Your task to perform on an android device: Do I have any events today? Image 0: 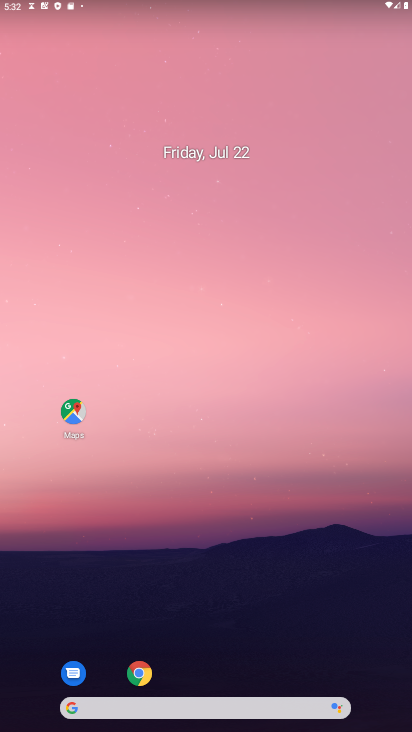
Step 0: press home button
Your task to perform on an android device: Do I have any events today? Image 1: 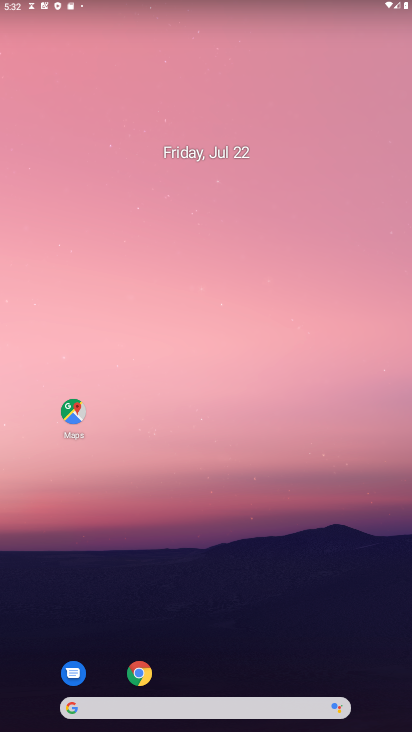
Step 1: drag from (216, 663) to (244, 79)
Your task to perform on an android device: Do I have any events today? Image 2: 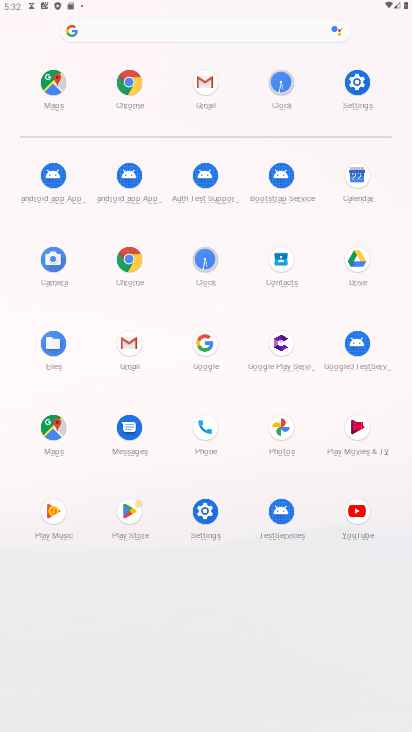
Step 2: click (358, 178)
Your task to perform on an android device: Do I have any events today? Image 3: 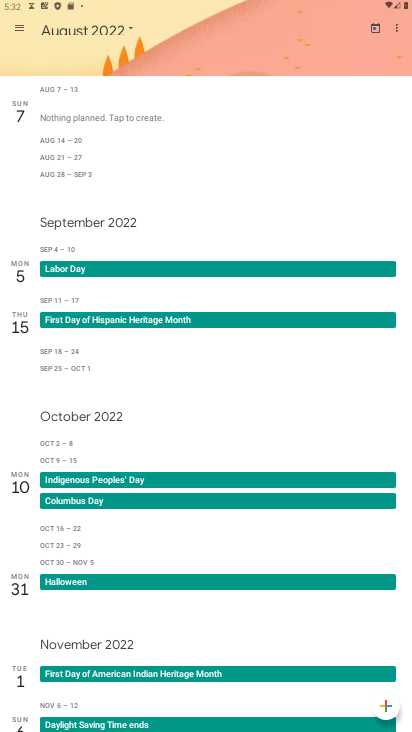
Step 3: click (128, 30)
Your task to perform on an android device: Do I have any events today? Image 4: 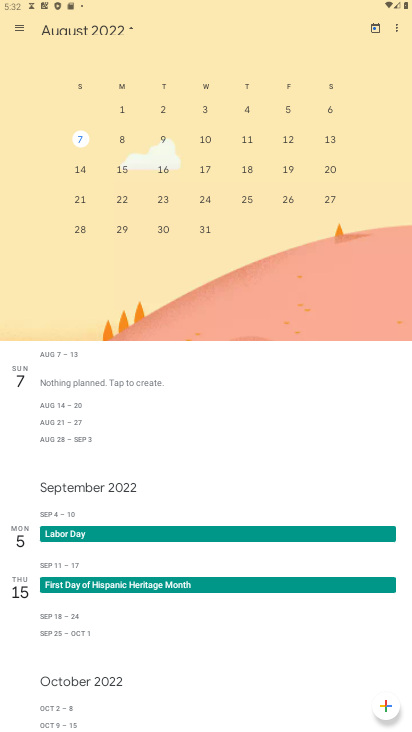
Step 4: drag from (105, 196) to (404, 179)
Your task to perform on an android device: Do I have any events today? Image 5: 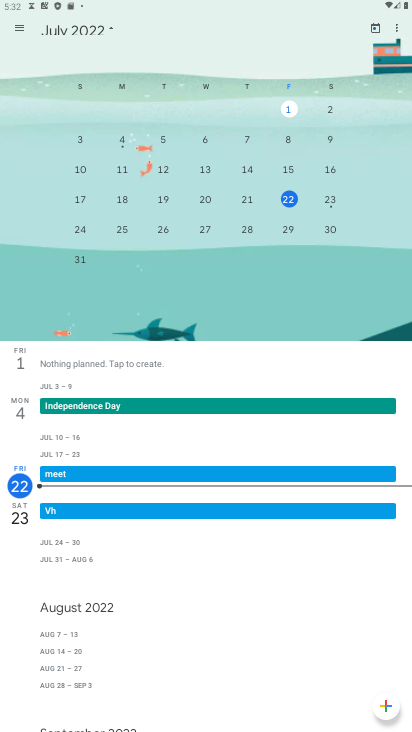
Step 5: click (289, 204)
Your task to perform on an android device: Do I have any events today? Image 6: 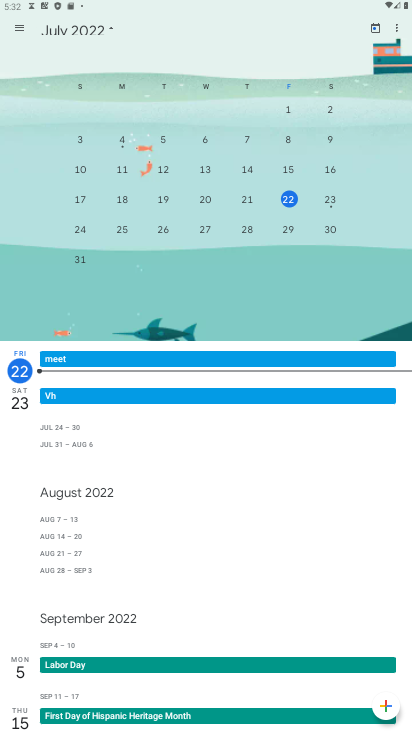
Step 6: task complete